Your task to perform on an android device: manage bookmarks in the chrome app Image 0: 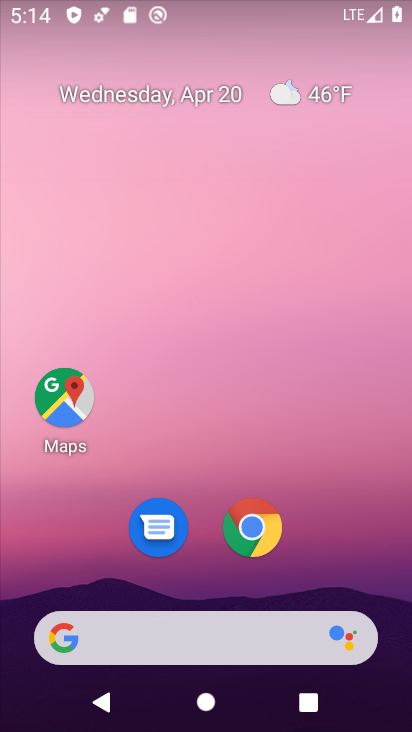
Step 0: click (252, 525)
Your task to perform on an android device: manage bookmarks in the chrome app Image 1: 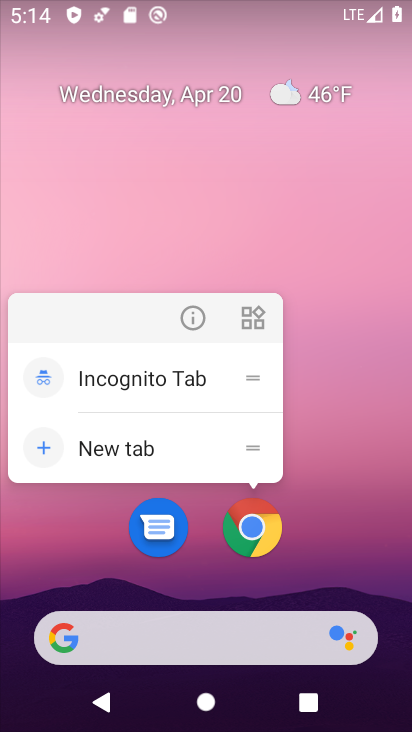
Step 1: click (252, 525)
Your task to perform on an android device: manage bookmarks in the chrome app Image 2: 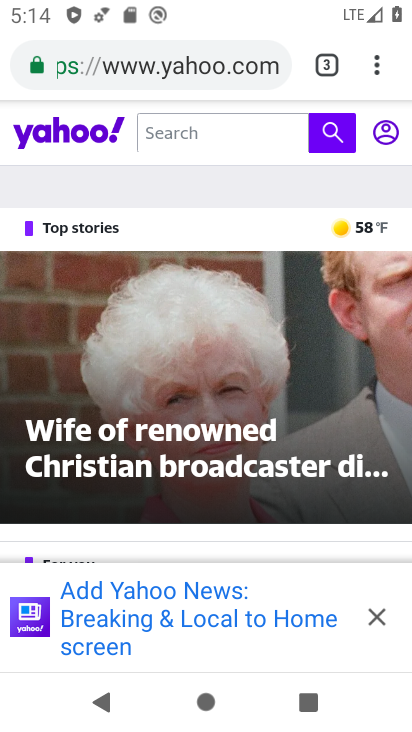
Step 2: click (374, 70)
Your task to perform on an android device: manage bookmarks in the chrome app Image 3: 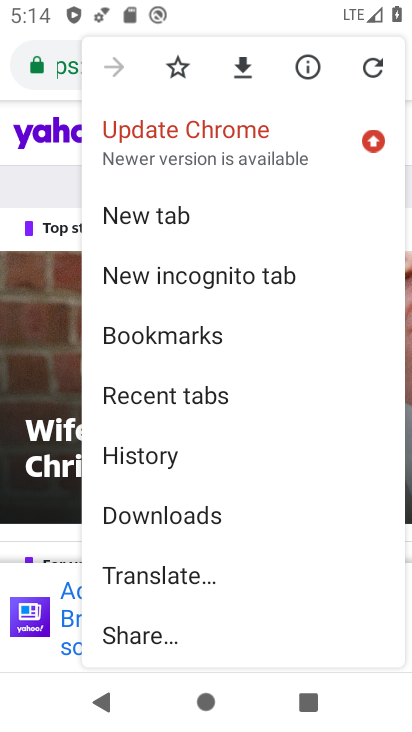
Step 3: click (182, 345)
Your task to perform on an android device: manage bookmarks in the chrome app Image 4: 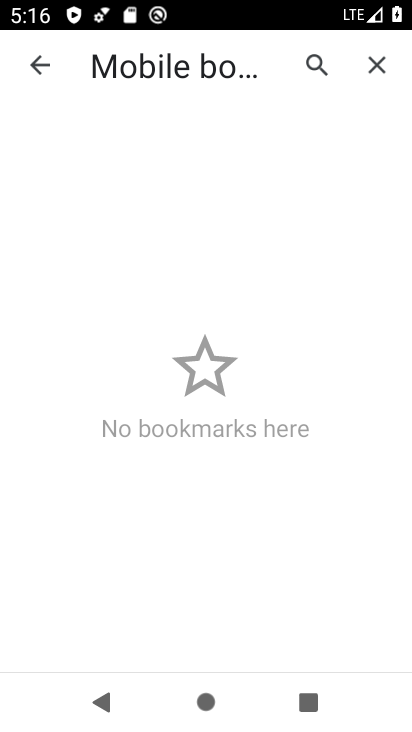
Step 4: task complete